Your task to perform on an android device: see sites visited before in the chrome app Image 0: 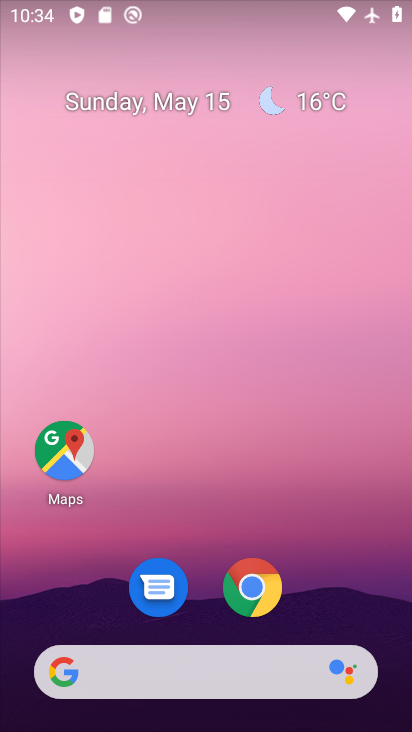
Step 0: drag from (305, 569) to (249, 21)
Your task to perform on an android device: see sites visited before in the chrome app Image 1: 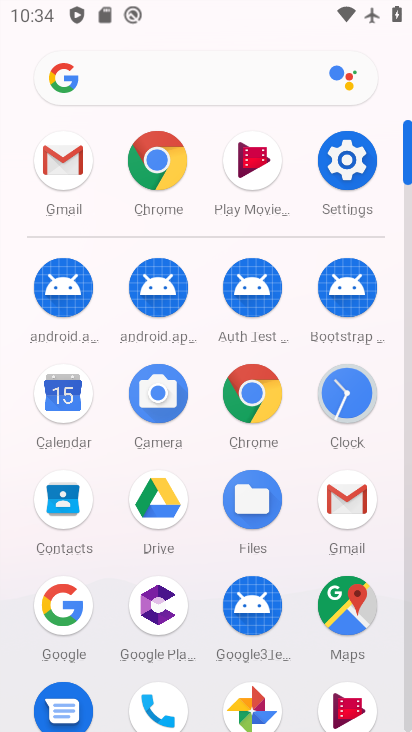
Step 1: drag from (12, 520) to (26, 197)
Your task to perform on an android device: see sites visited before in the chrome app Image 2: 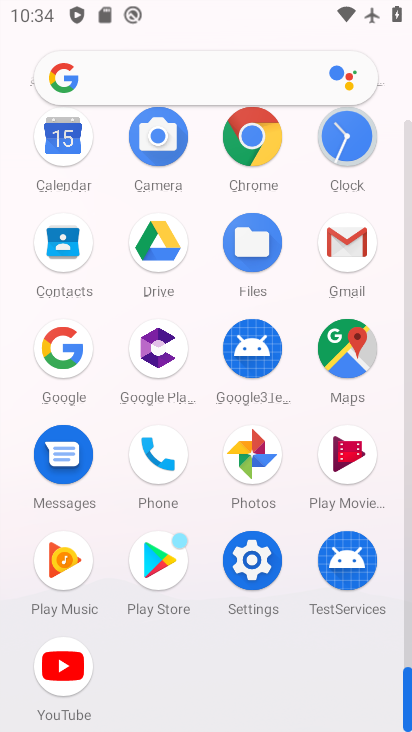
Step 2: click (251, 132)
Your task to perform on an android device: see sites visited before in the chrome app Image 3: 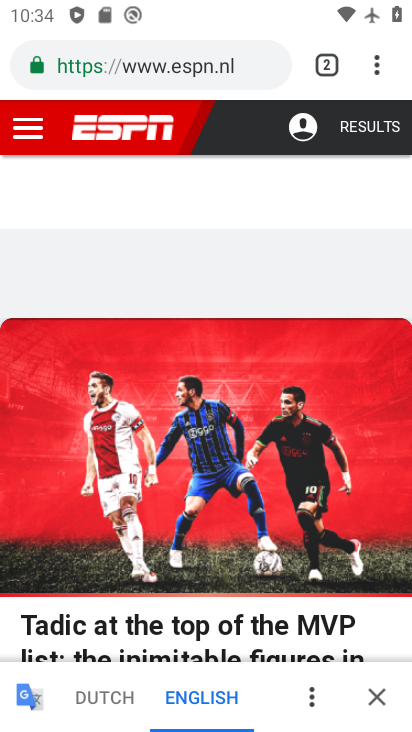
Step 3: task complete